Your task to perform on an android device: delete location history Image 0: 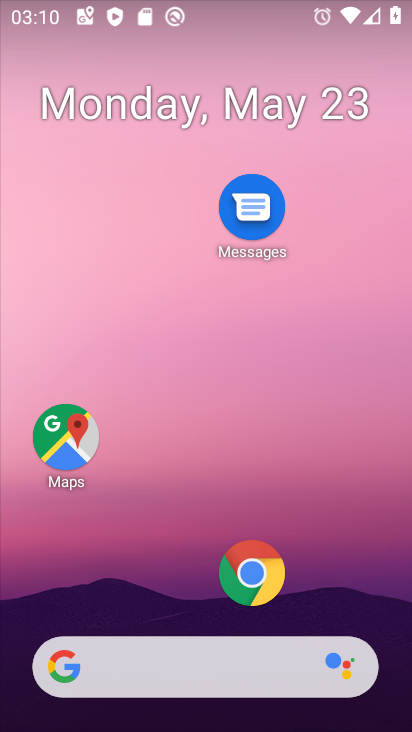
Step 0: drag from (222, 519) to (264, 34)
Your task to perform on an android device: delete location history Image 1: 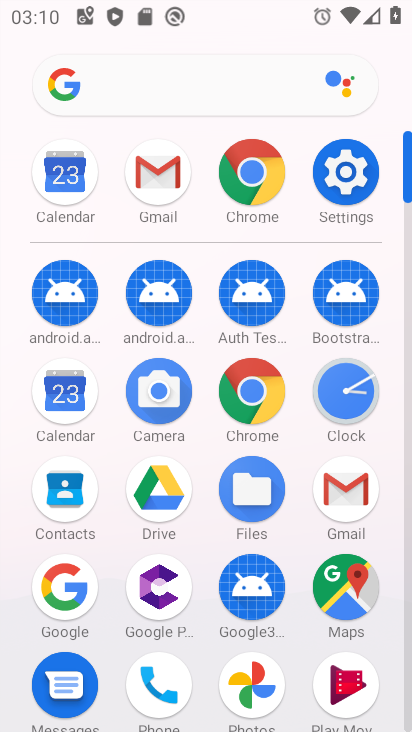
Step 1: click (328, 587)
Your task to perform on an android device: delete location history Image 2: 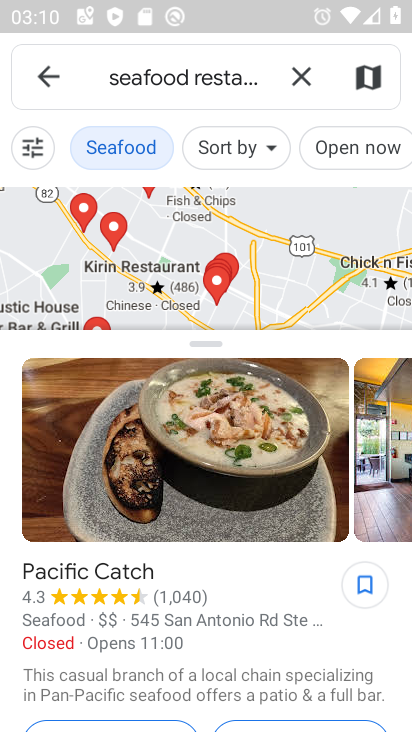
Step 2: press back button
Your task to perform on an android device: delete location history Image 3: 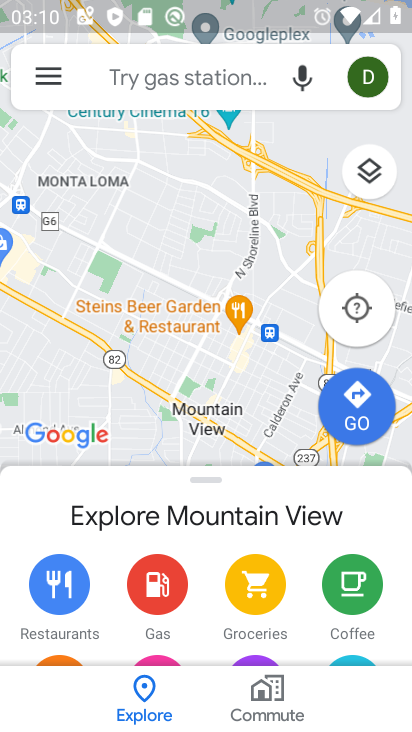
Step 3: click (45, 81)
Your task to perform on an android device: delete location history Image 4: 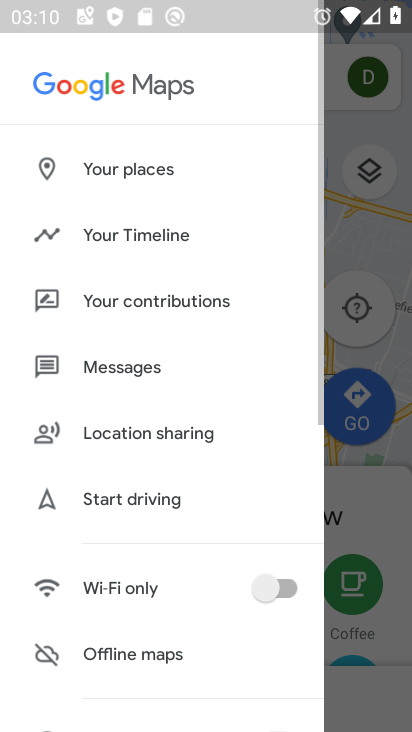
Step 4: click (110, 235)
Your task to perform on an android device: delete location history Image 5: 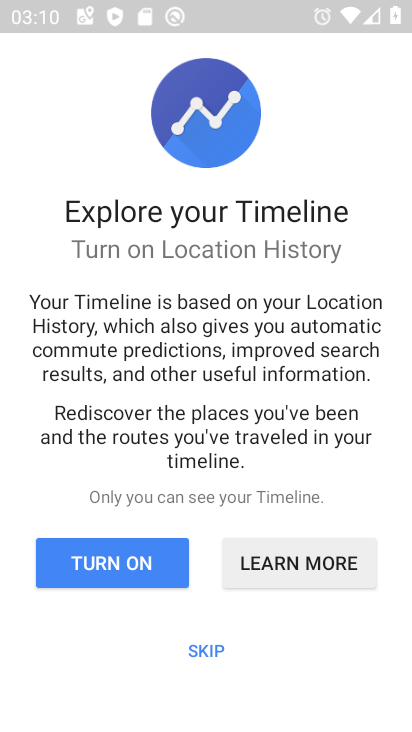
Step 5: click (219, 640)
Your task to perform on an android device: delete location history Image 6: 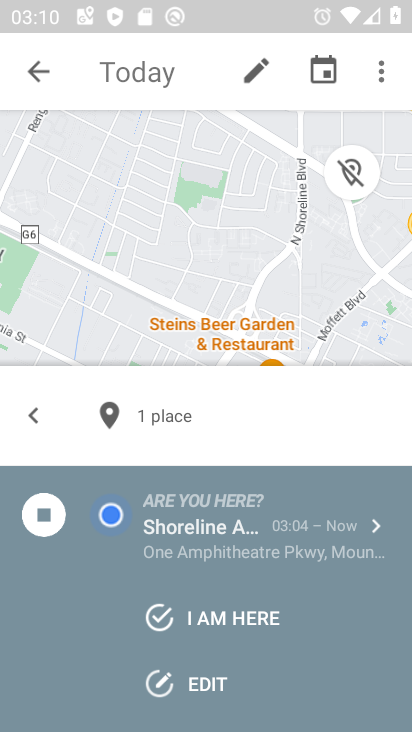
Step 6: click (382, 69)
Your task to perform on an android device: delete location history Image 7: 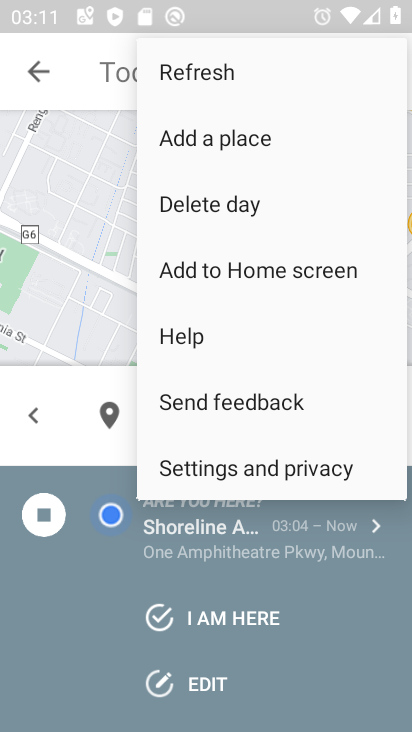
Step 7: click (238, 469)
Your task to perform on an android device: delete location history Image 8: 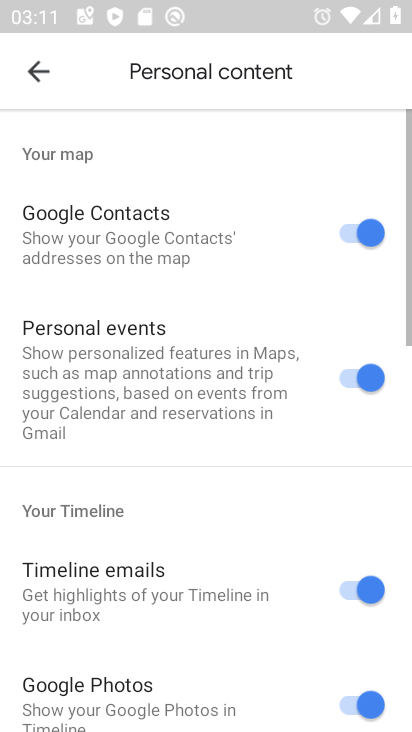
Step 8: drag from (218, 615) to (218, 79)
Your task to perform on an android device: delete location history Image 9: 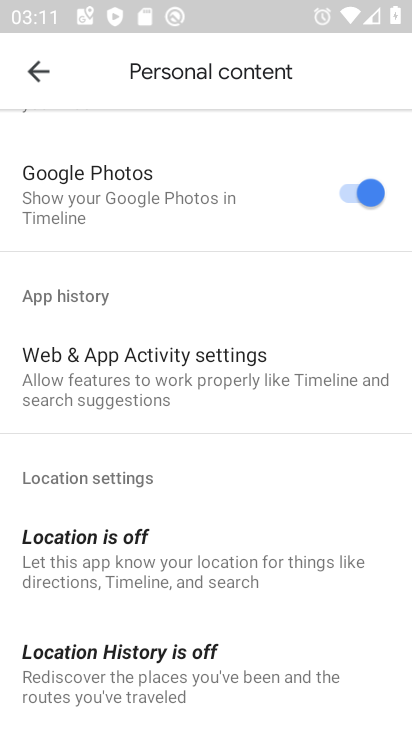
Step 9: drag from (171, 647) to (190, 254)
Your task to perform on an android device: delete location history Image 10: 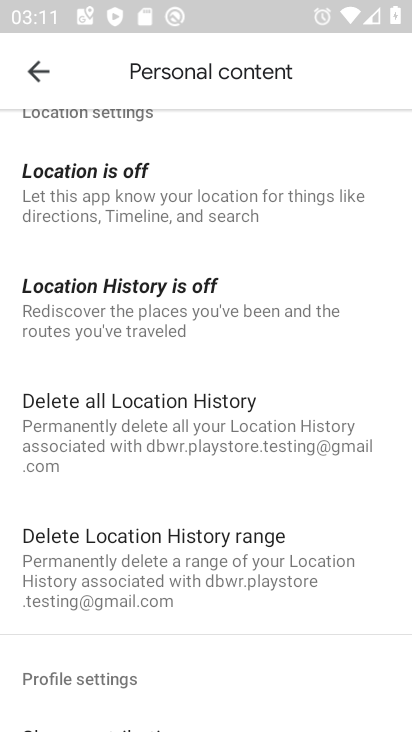
Step 10: click (184, 570)
Your task to perform on an android device: delete location history Image 11: 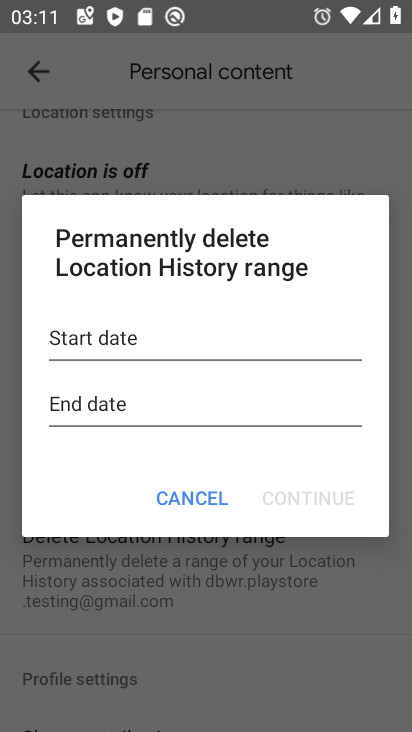
Step 11: click (175, 502)
Your task to perform on an android device: delete location history Image 12: 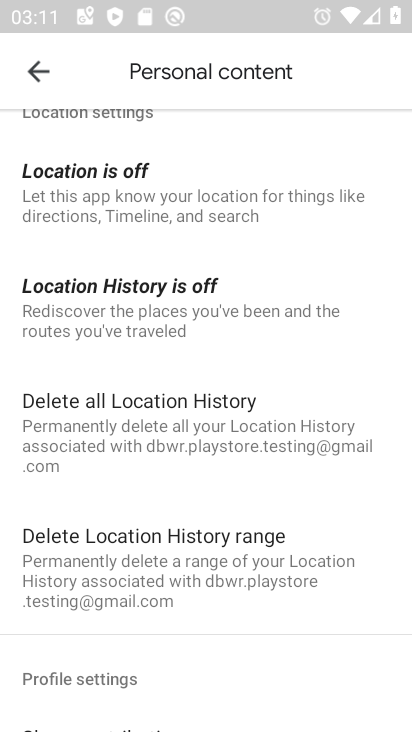
Step 12: click (194, 404)
Your task to perform on an android device: delete location history Image 13: 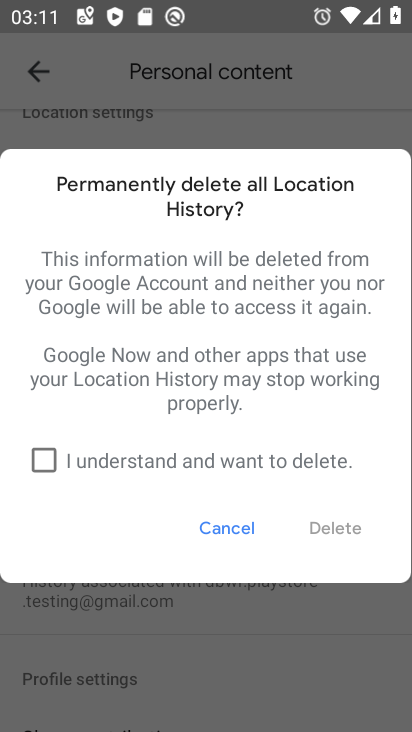
Step 13: click (49, 463)
Your task to perform on an android device: delete location history Image 14: 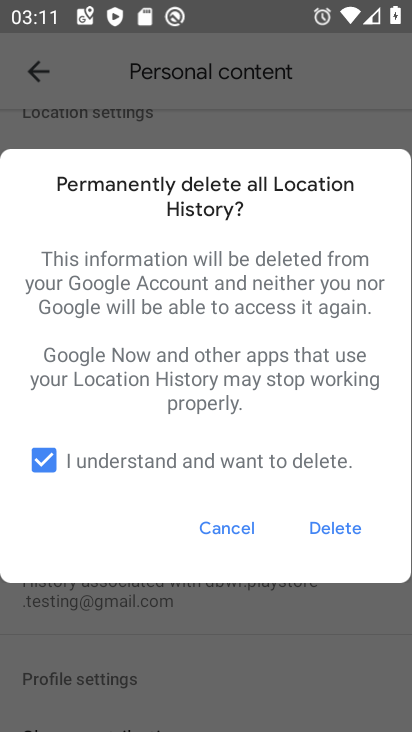
Step 14: click (340, 529)
Your task to perform on an android device: delete location history Image 15: 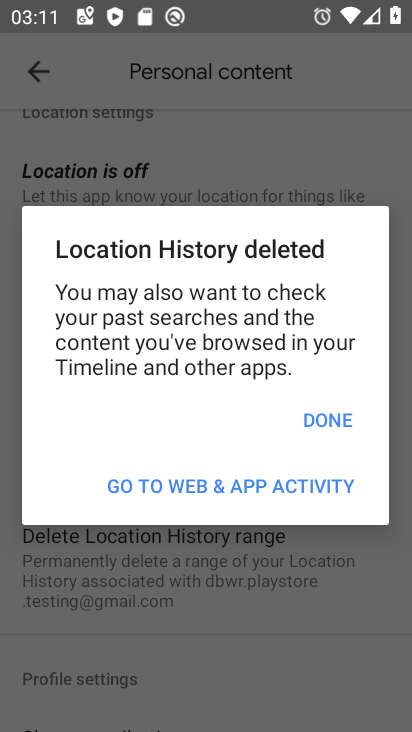
Step 15: click (329, 414)
Your task to perform on an android device: delete location history Image 16: 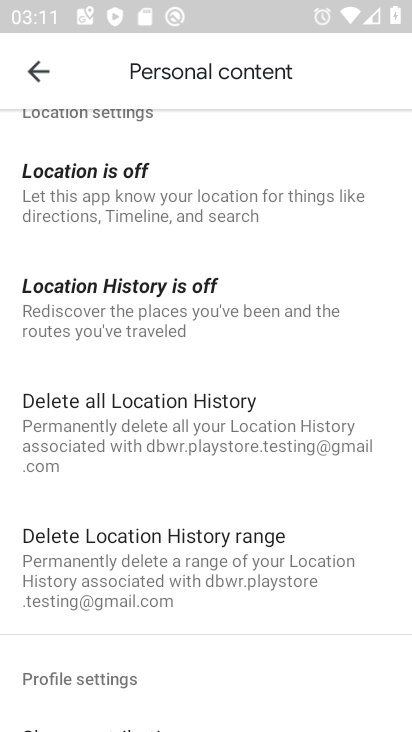
Step 16: task complete